Your task to perform on an android device: Open the Play Movies app and select the watchlist tab. Image 0: 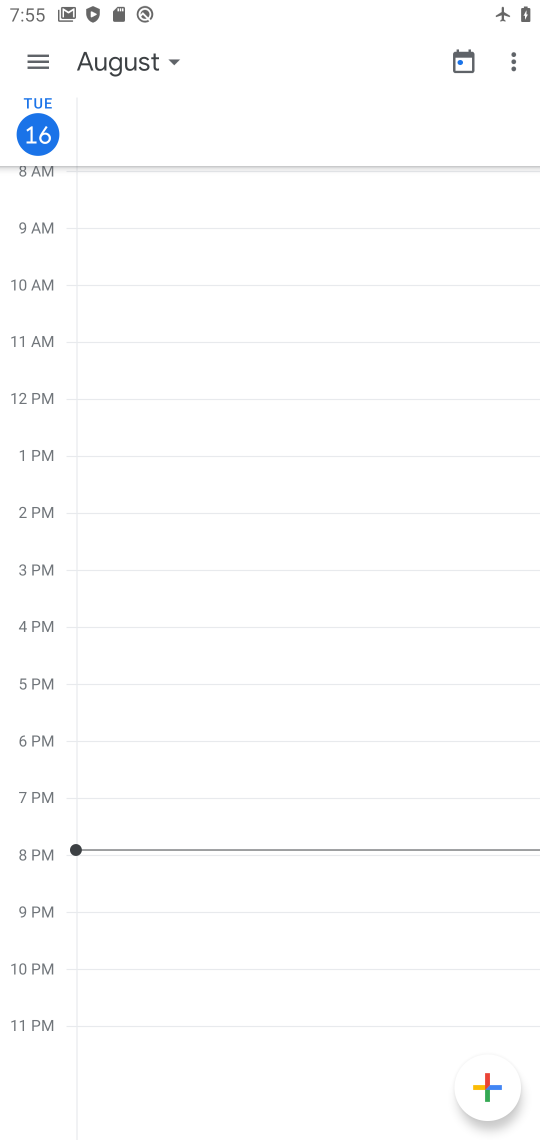
Step 0: press home button
Your task to perform on an android device: Open the Play Movies app and select the watchlist tab. Image 1: 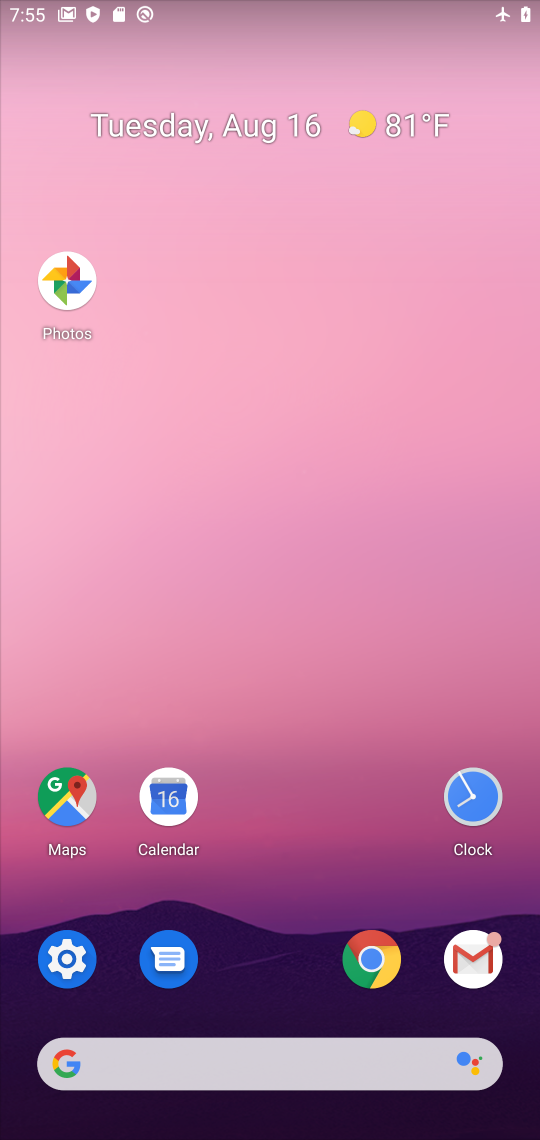
Step 1: drag from (269, 968) to (247, 274)
Your task to perform on an android device: Open the Play Movies app and select the watchlist tab. Image 2: 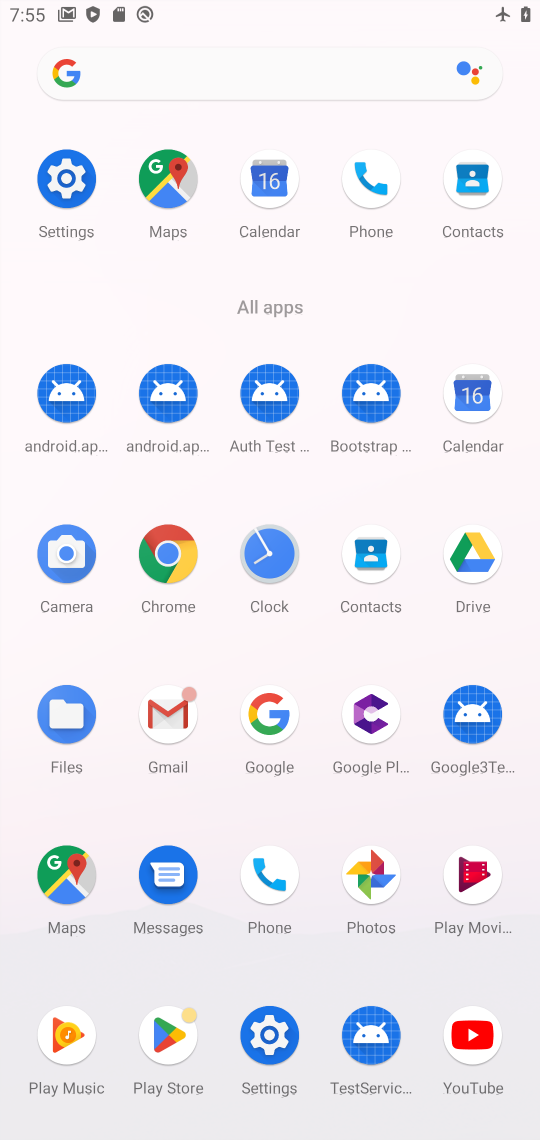
Step 2: click (469, 862)
Your task to perform on an android device: Open the Play Movies app and select the watchlist tab. Image 3: 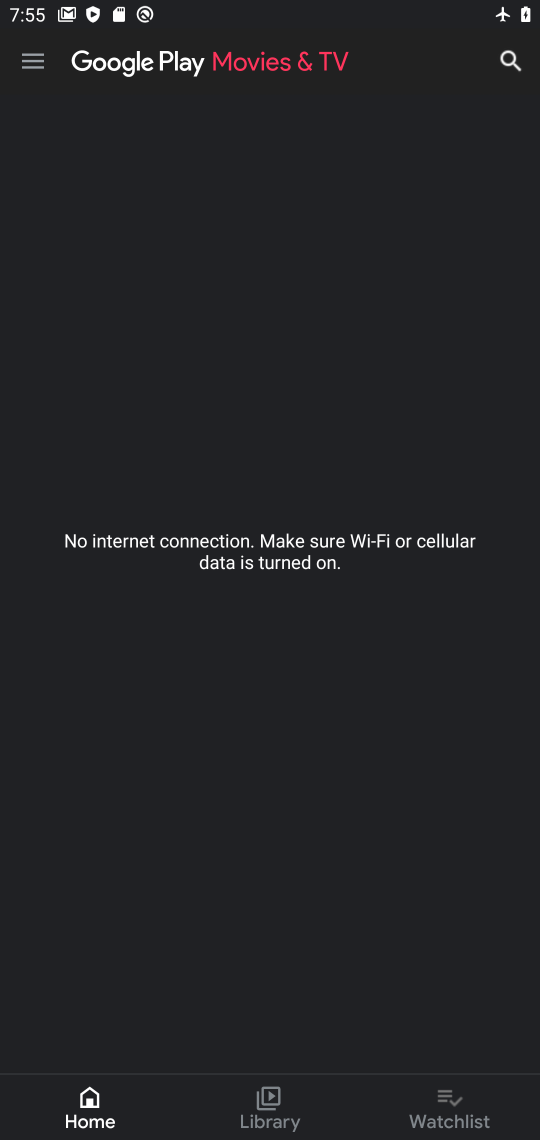
Step 3: click (460, 1112)
Your task to perform on an android device: Open the Play Movies app and select the watchlist tab. Image 4: 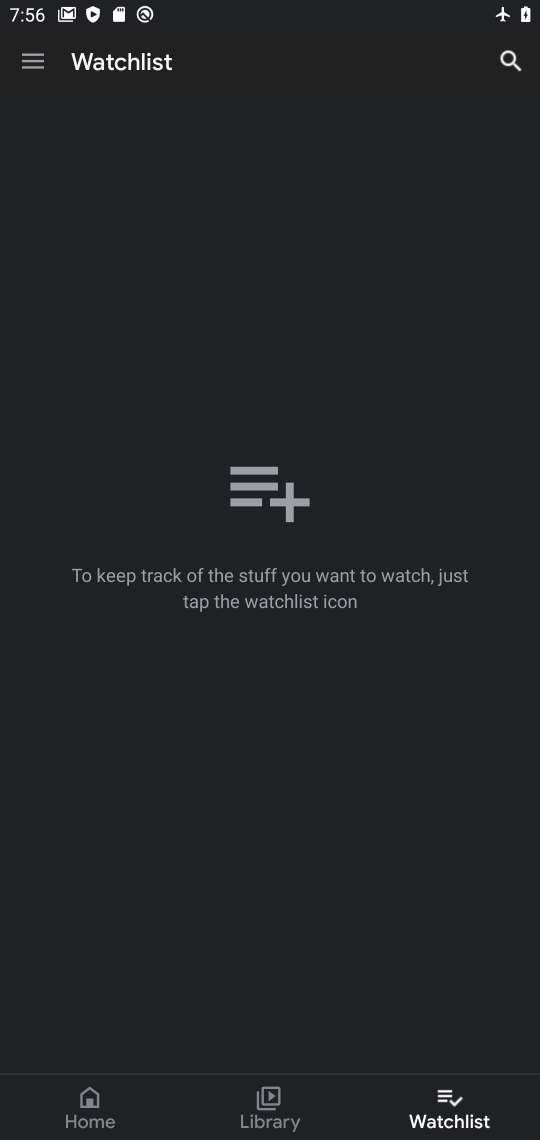
Step 4: task complete